Your task to perform on an android device: Is it going to rain today? Image 0: 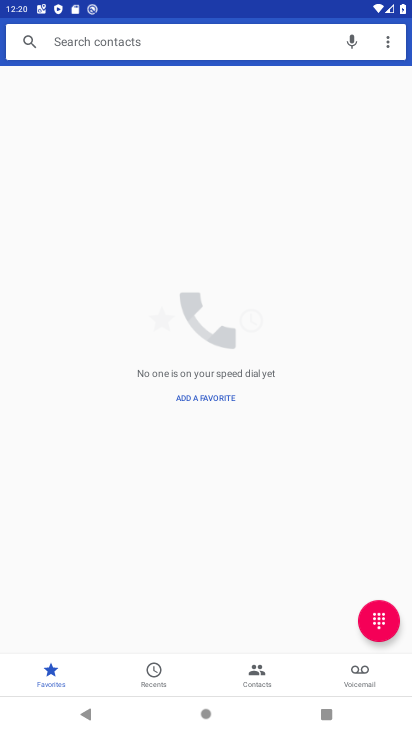
Step 0: press home button
Your task to perform on an android device: Is it going to rain today? Image 1: 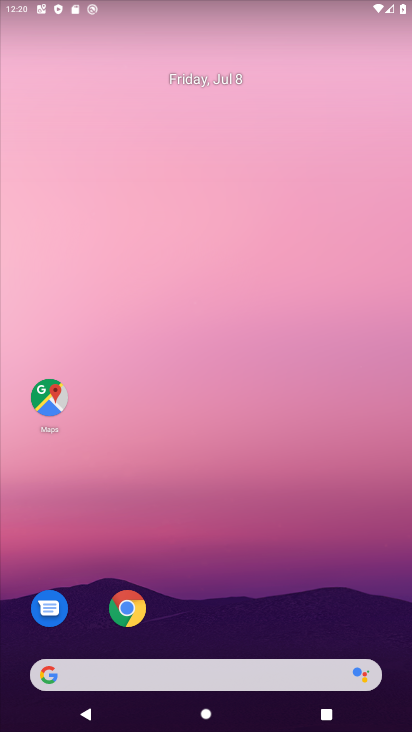
Step 1: click (128, 677)
Your task to perform on an android device: Is it going to rain today? Image 2: 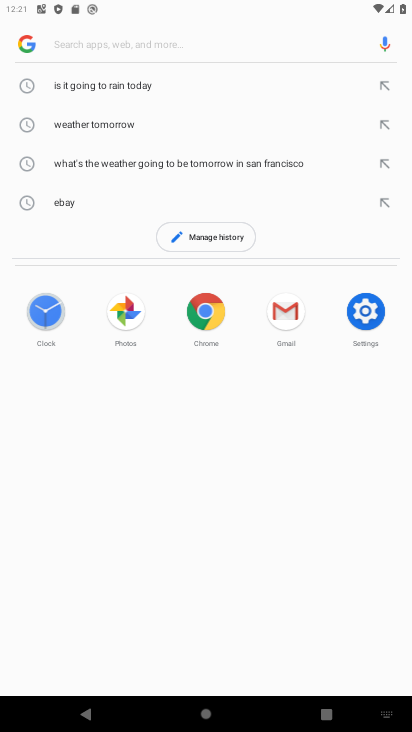
Step 2: type "Is it going to rain today?"
Your task to perform on an android device: Is it going to rain today? Image 3: 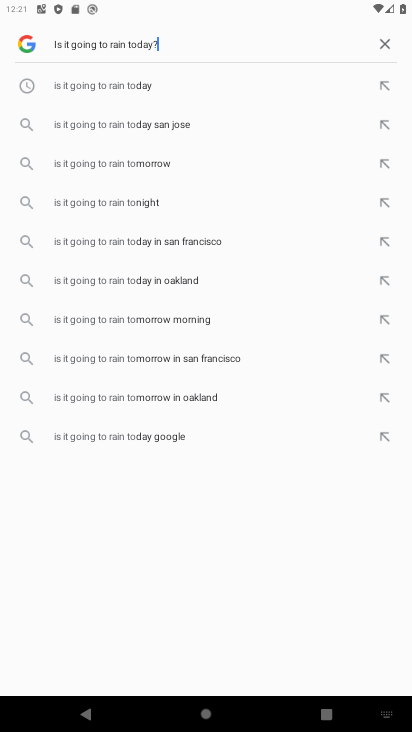
Step 3: type ""
Your task to perform on an android device: Is it going to rain today? Image 4: 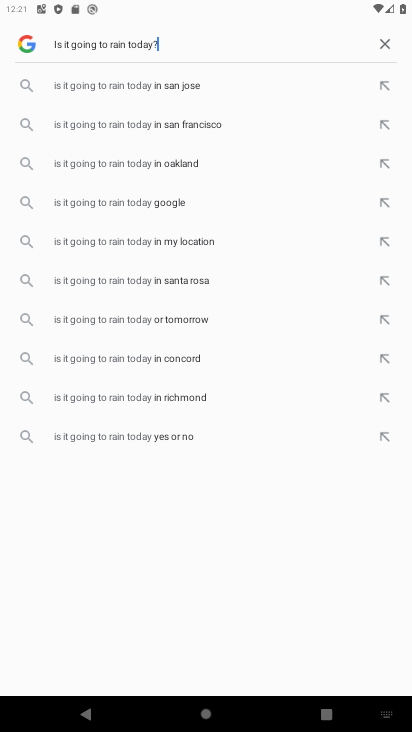
Step 4: type ""
Your task to perform on an android device: Is it going to rain today? Image 5: 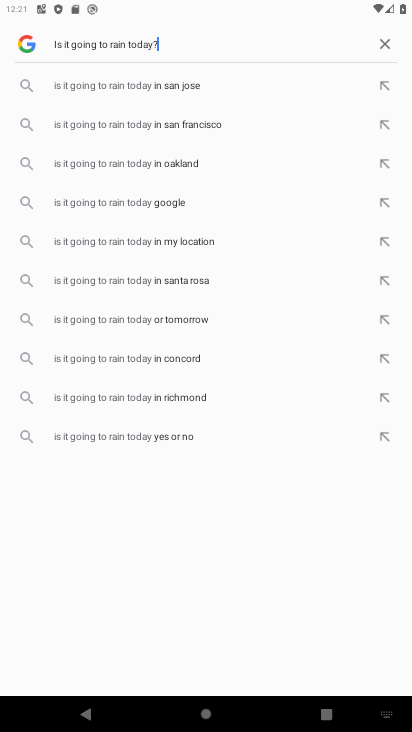
Step 5: task complete